Your task to perform on an android device: turn smart compose on in the gmail app Image 0: 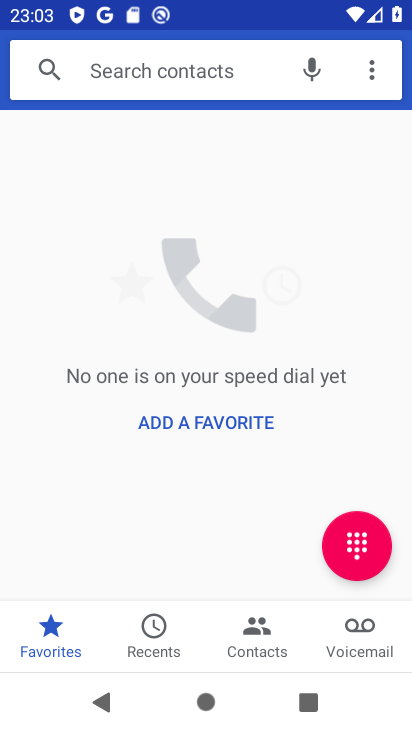
Step 0: press back button
Your task to perform on an android device: turn smart compose on in the gmail app Image 1: 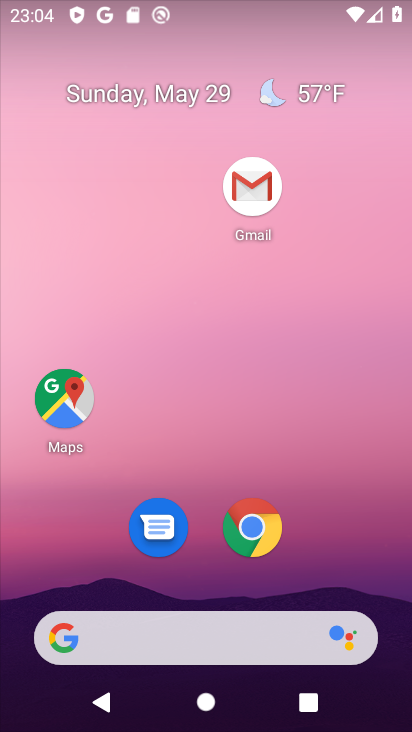
Step 1: click (250, 187)
Your task to perform on an android device: turn smart compose on in the gmail app Image 2: 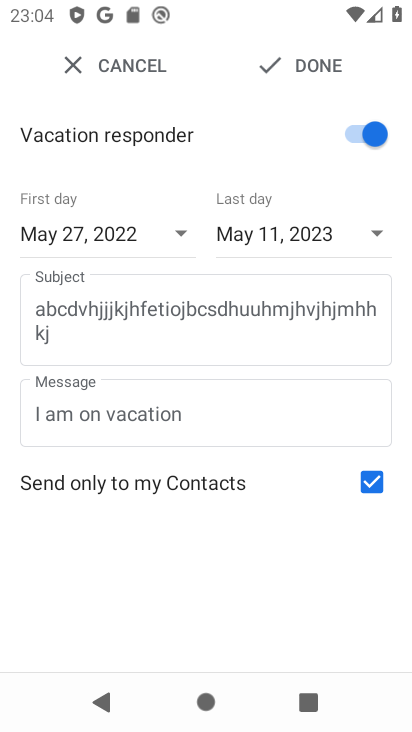
Step 2: click (71, 70)
Your task to perform on an android device: turn smart compose on in the gmail app Image 3: 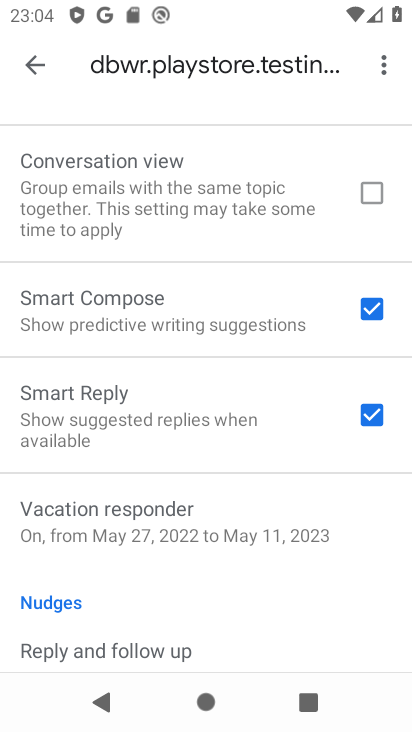
Step 3: task complete